Your task to perform on an android device: turn on data saver in the chrome app Image 0: 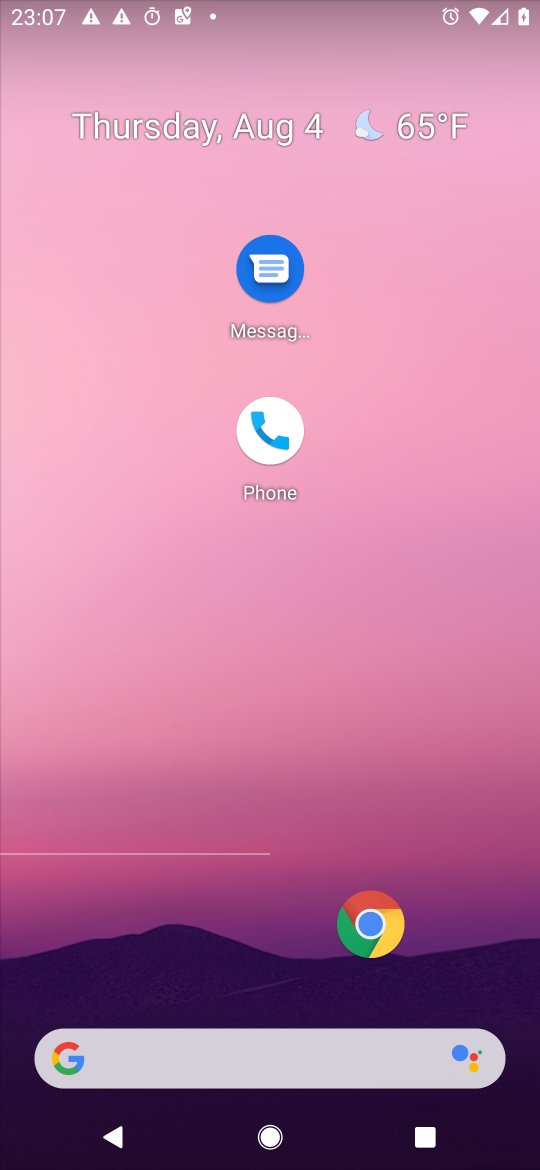
Step 0: click (368, 238)
Your task to perform on an android device: turn on data saver in the chrome app Image 1: 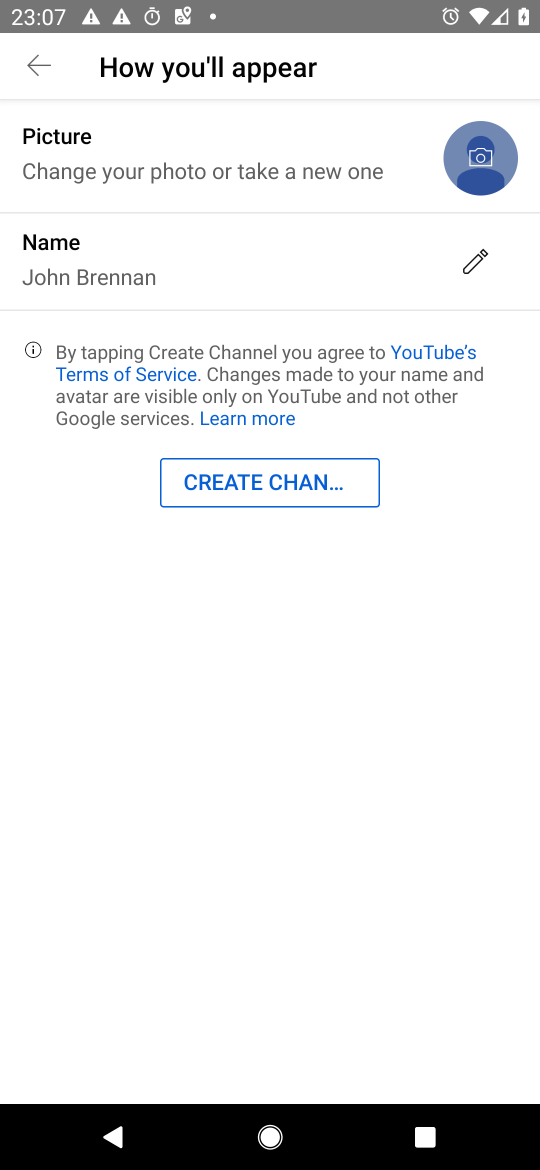
Step 1: click (207, 1052)
Your task to perform on an android device: turn on data saver in the chrome app Image 2: 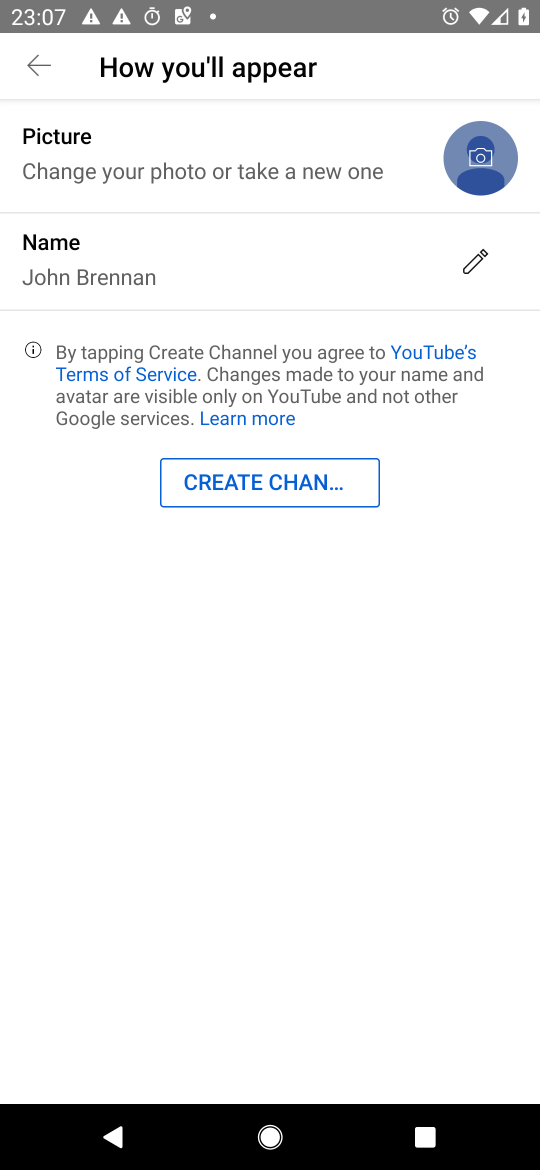
Step 2: press home button
Your task to perform on an android device: turn on data saver in the chrome app Image 3: 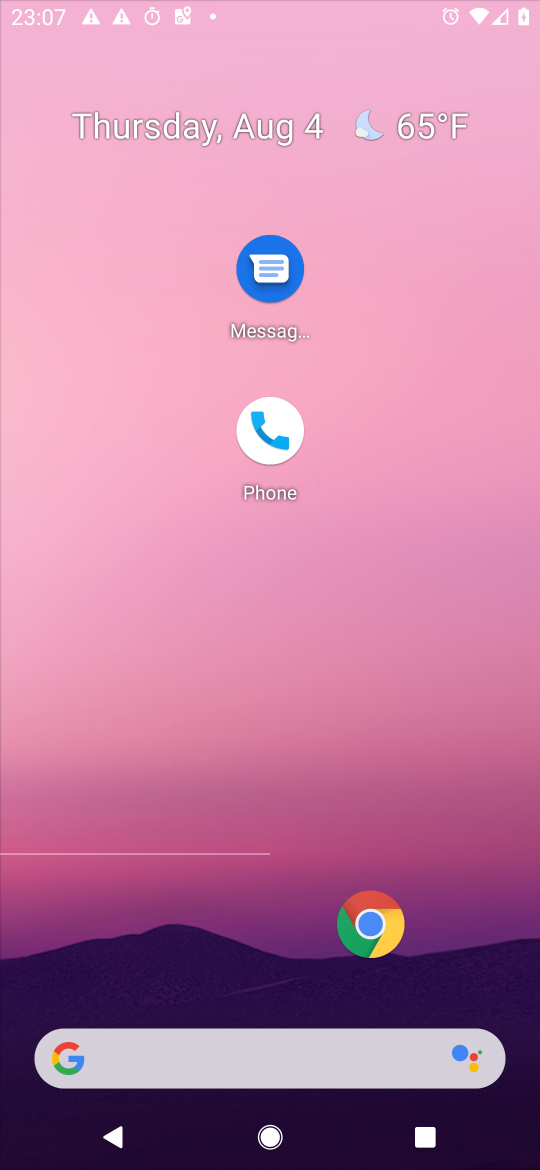
Step 3: drag from (244, 754) to (353, 94)
Your task to perform on an android device: turn on data saver in the chrome app Image 4: 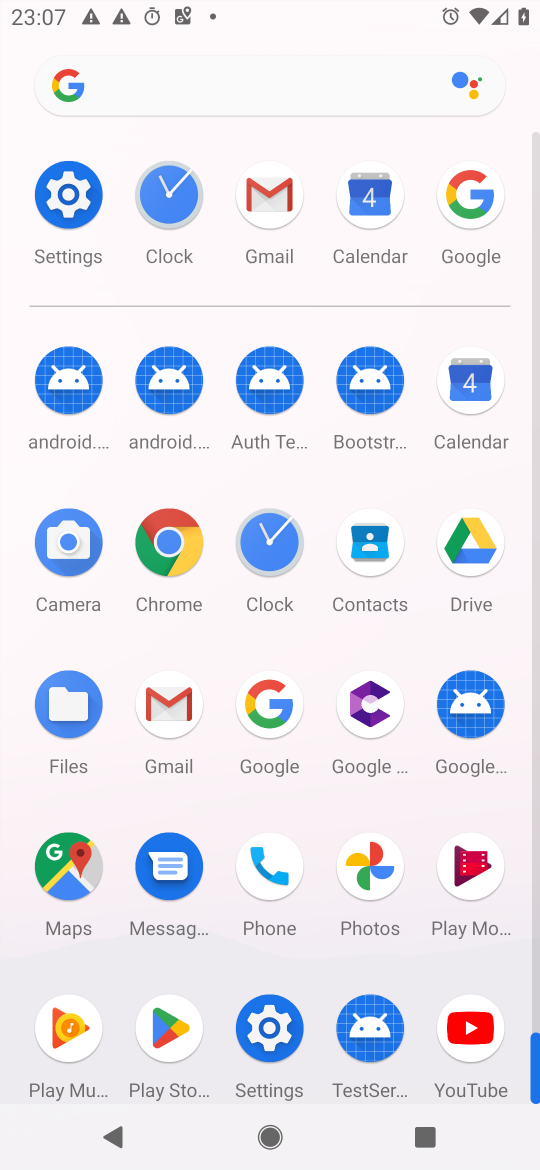
Step 4: click (165, 521)
Your task to perform on an android device: turn on data saver in the chrome app Image 5: 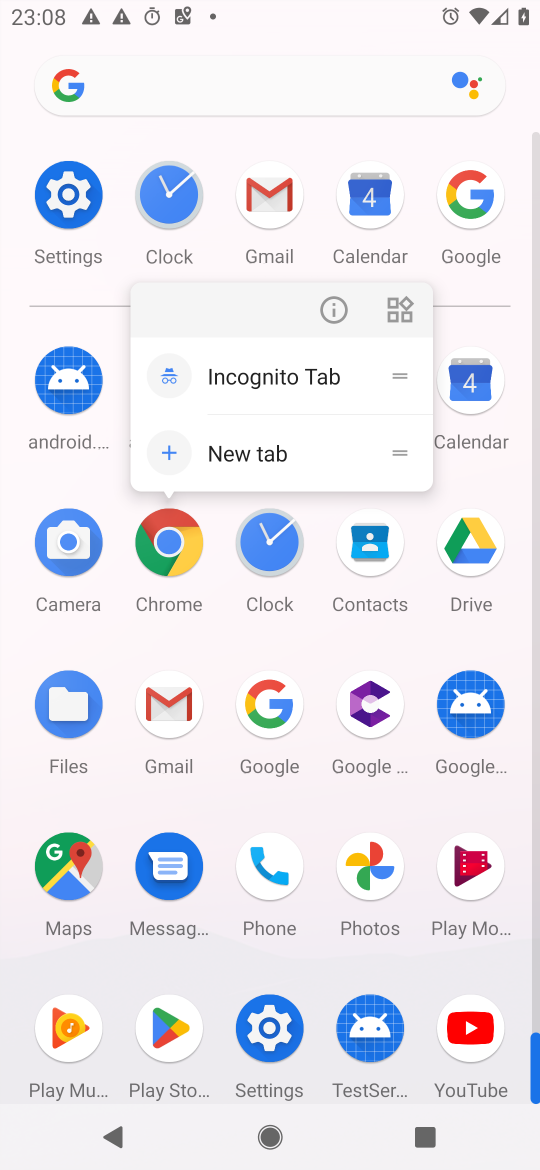
Step 5: click (330, 312)
Your task to perform on an android device: turn on data saver in the chrome app Image 6: 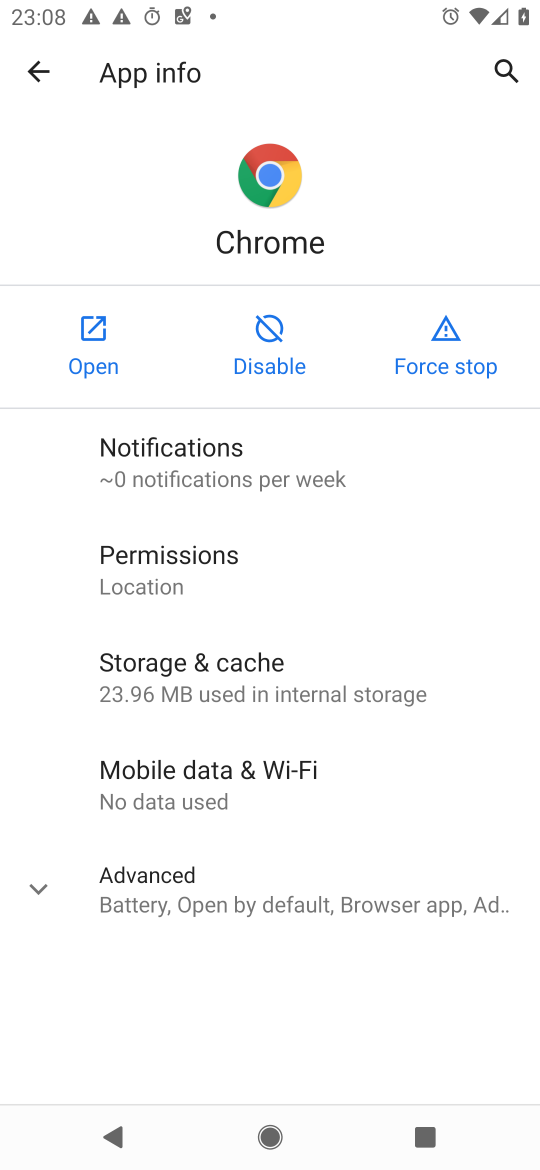
Step 6: click (81, 353)
Your task to perform on an android device: turn on data saver in the chrome app Image 7: 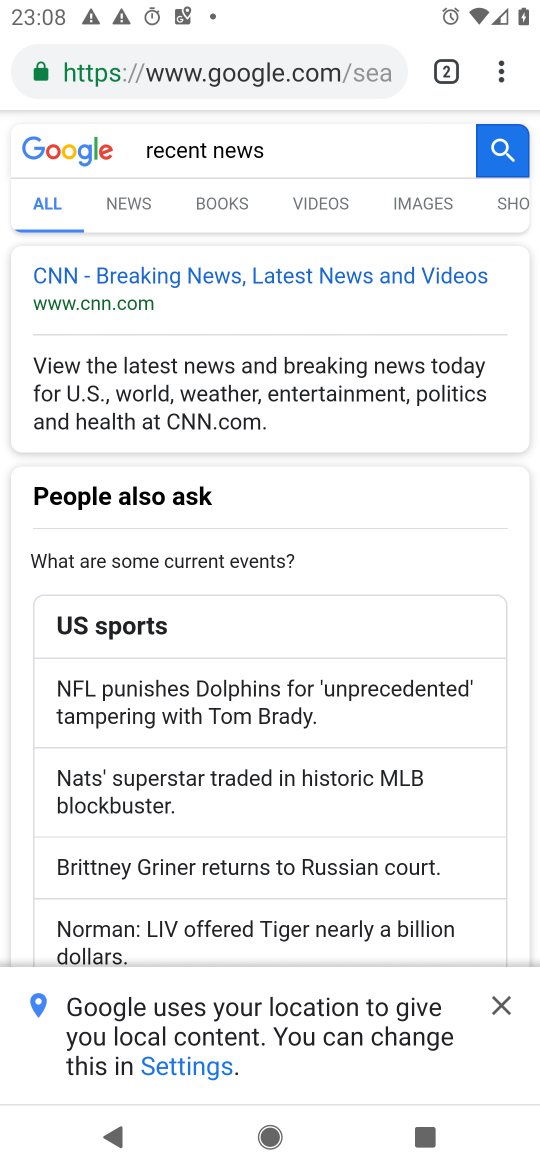
Step 7: drag from (497, 71) to (285, 797)
Your task to perform on an android device: turn on data saver in the chrome app Image 8: 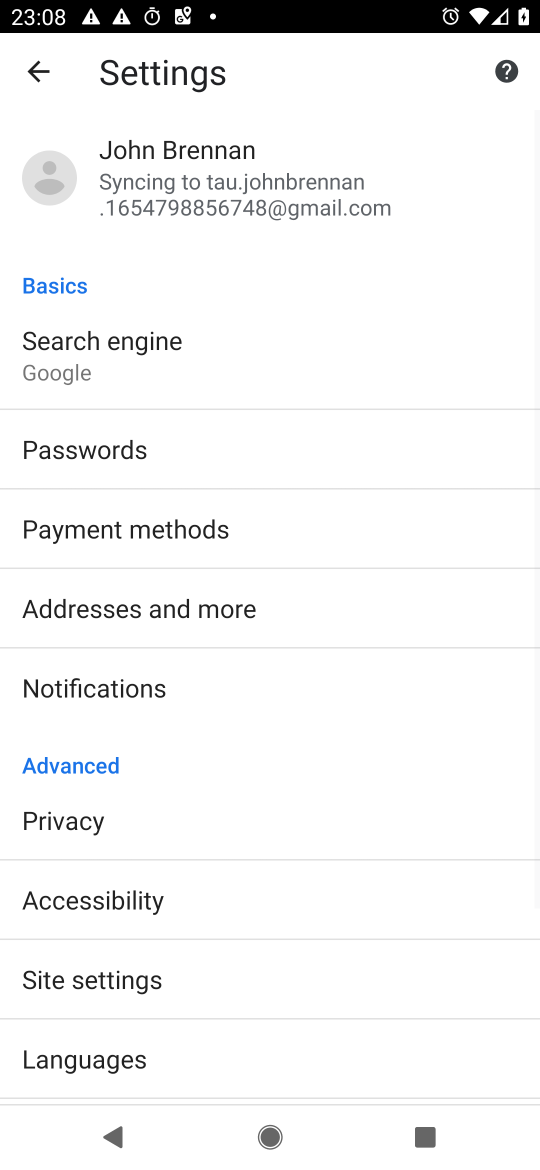
Step 8: drag from (239, 891) to (288, 208)
Your task to perform on an android device: turn on data saver in the chrome app Image 9: 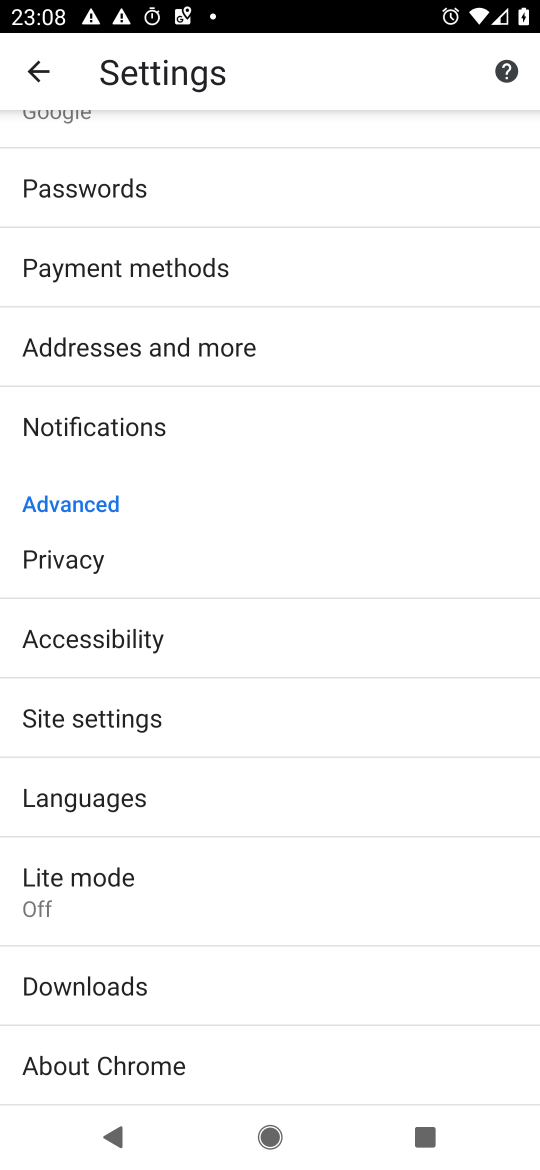
Step 9: drag from (229, 961) to (287, 550)
Your task to perform on an android device: turn on data saver in the chrome app Image 10: 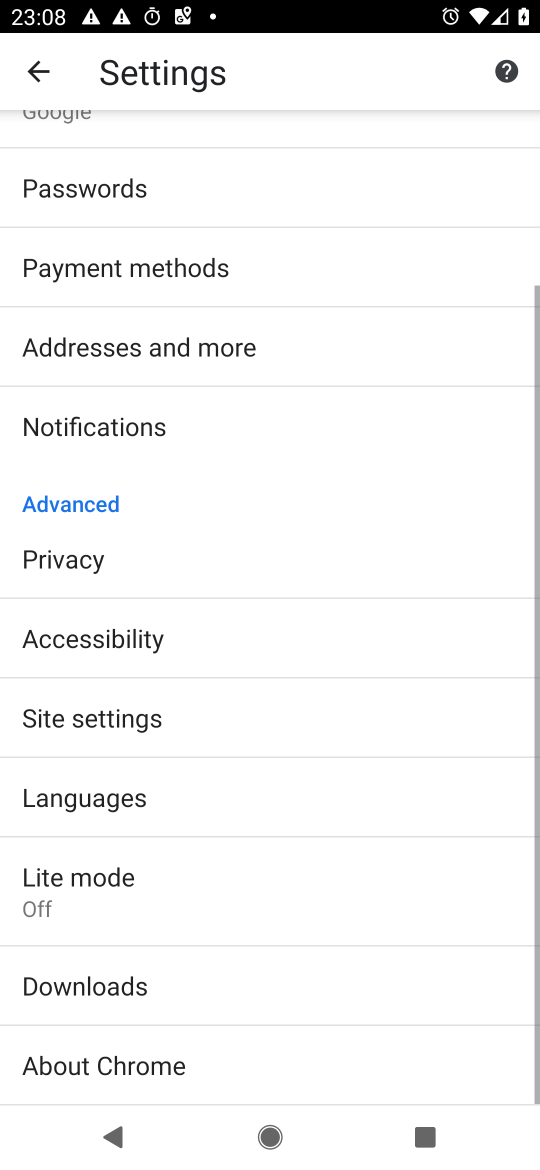
Step 10: click (184, 896)
Your task to perform on an android device: turn on data saver in the chrome app Image 11: 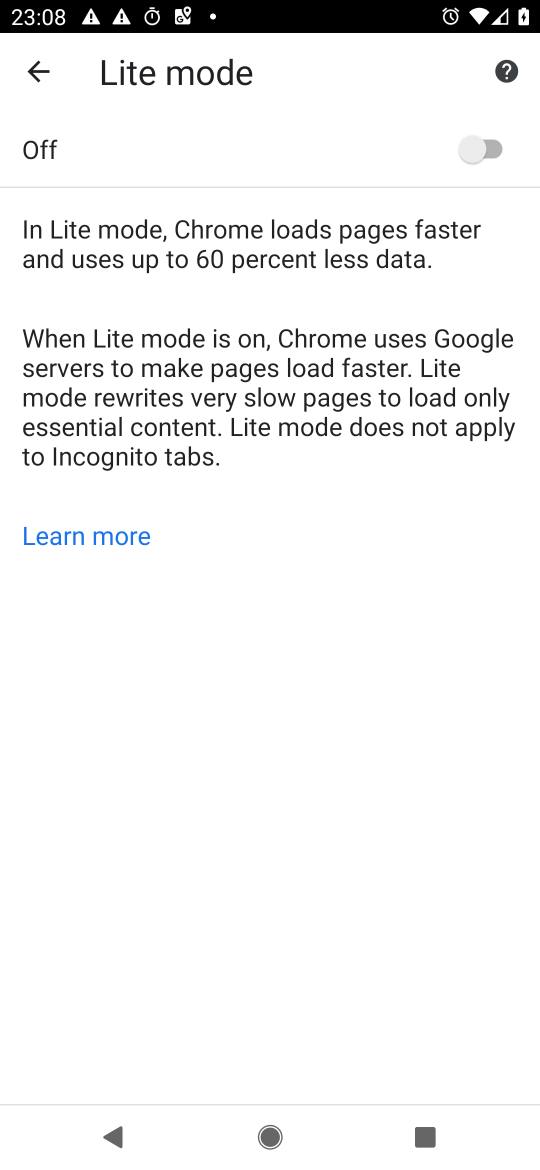
Step 11: click (447, 136)
Your task to perform on an android device: turn on data saver in the chrome app Image 12: 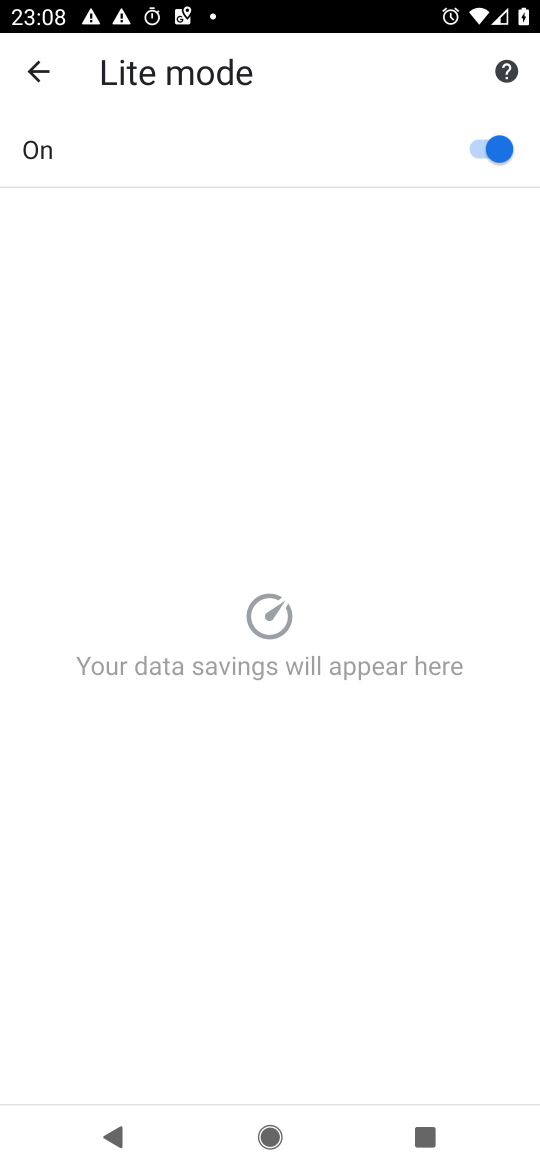
Step 12: task complete